Your task to perform on an android device: Go to privacy settings Image 0: 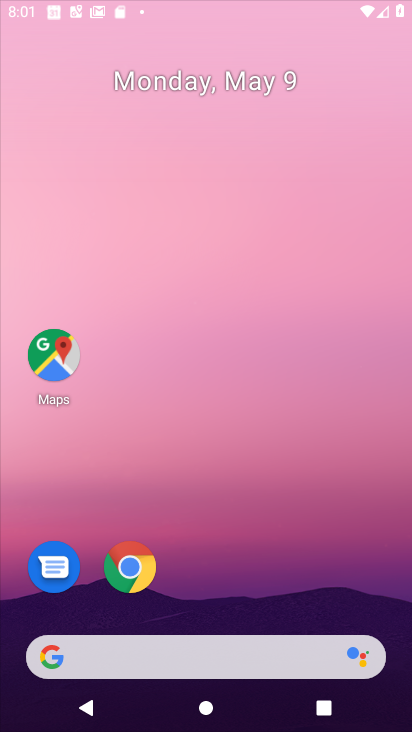
Step 0: drag from (247, 619) to (340, 185)
Your task to perform on an android device: Go to privacy settings Image 1: 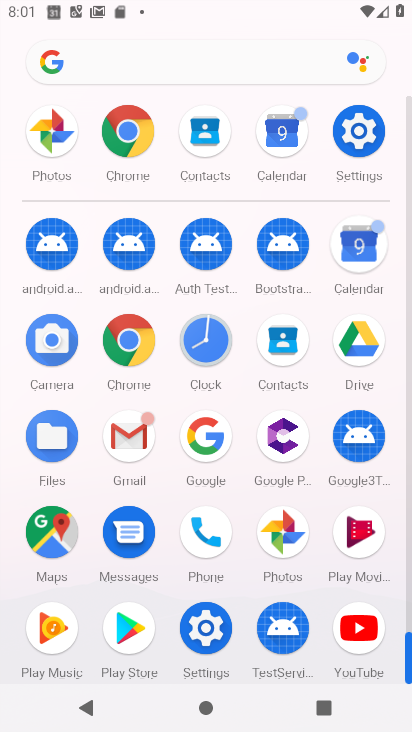
Step 1: click (216, 616)
Your task to perform on an android device: Go to privacy settings Image 2: 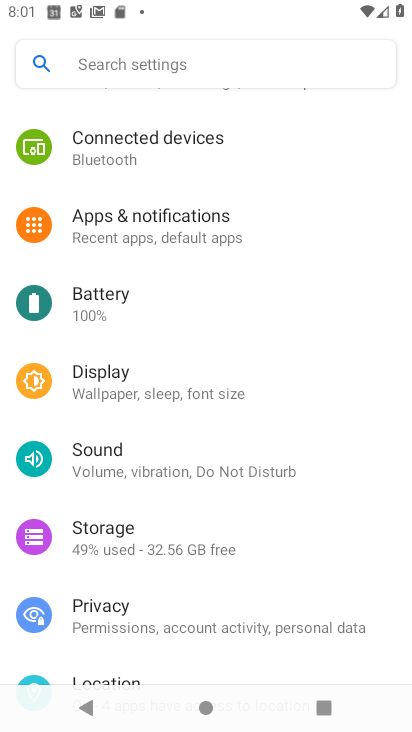
Step 2: click (180, 616)
Your task to perform on an android device: Go to privacy settings Image 3: 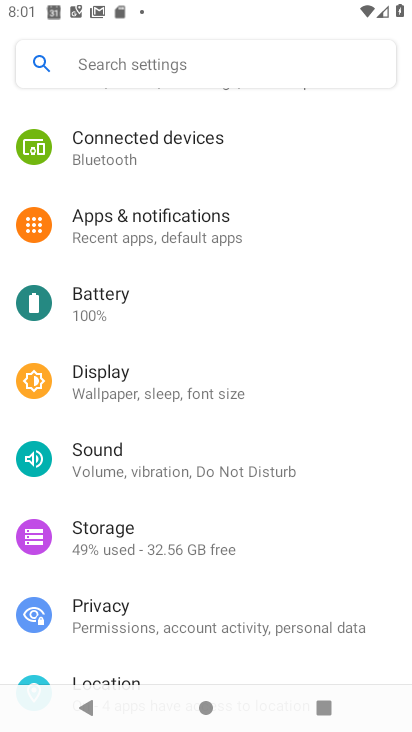
Step 3: click (180, 616)
Your task to perform on an android device: Go to privacy settings Image 4: 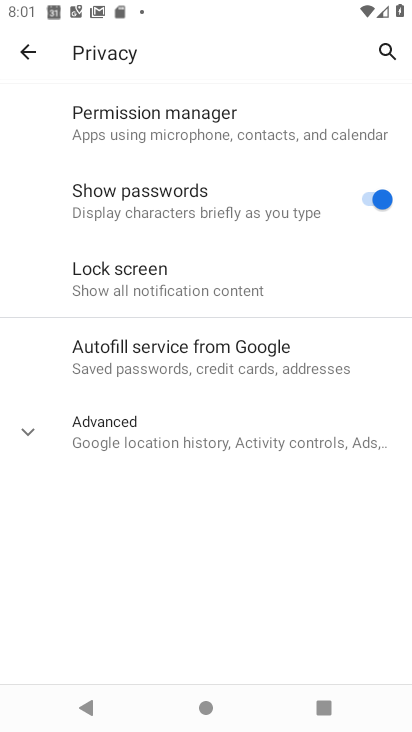
Step 4: drag from (188, 577) to (226, 334)
Your task to perform on an android device: Go to privacy settings Image 5: 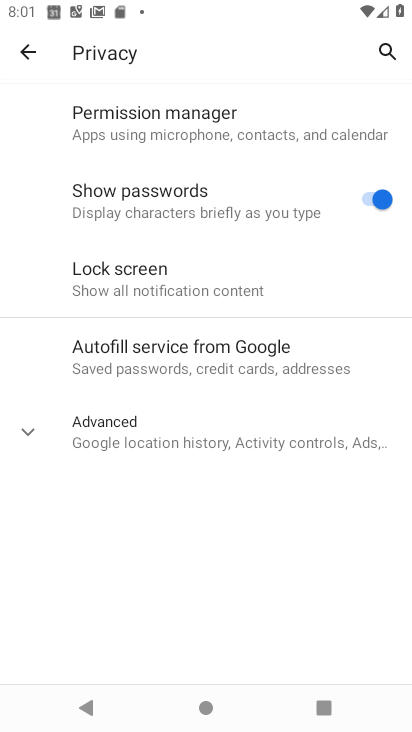
Step 5: click (88, 453)
Your task to perform on an android device: Go to privacy settings Image 6: 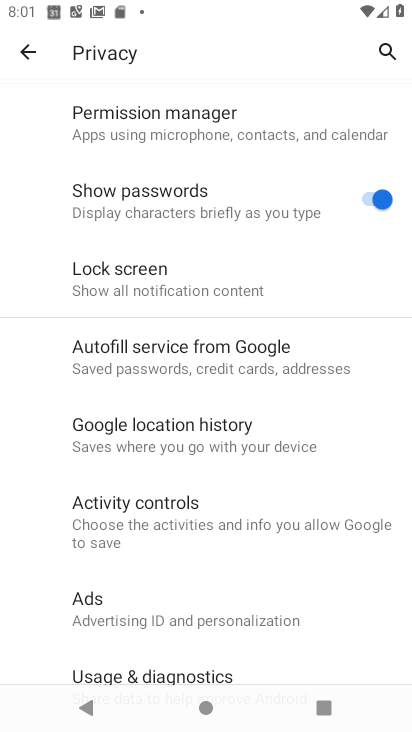
Step 6: task complete